Your task to perform on an android device: Go to sound settings Image 0: 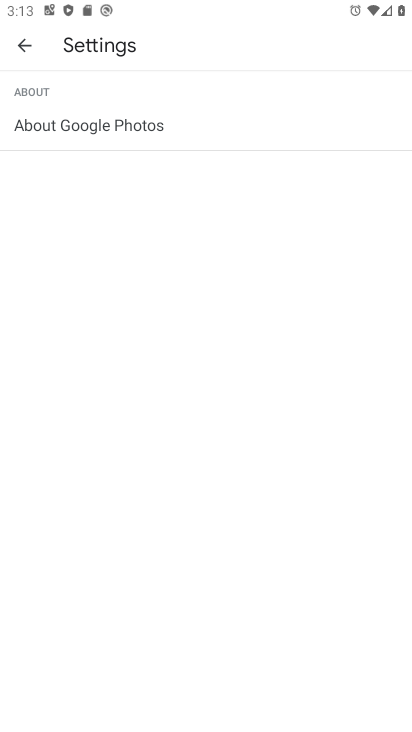
Step 0: press home button
Your task to perform on an android device: Go to sound settings Image 1: 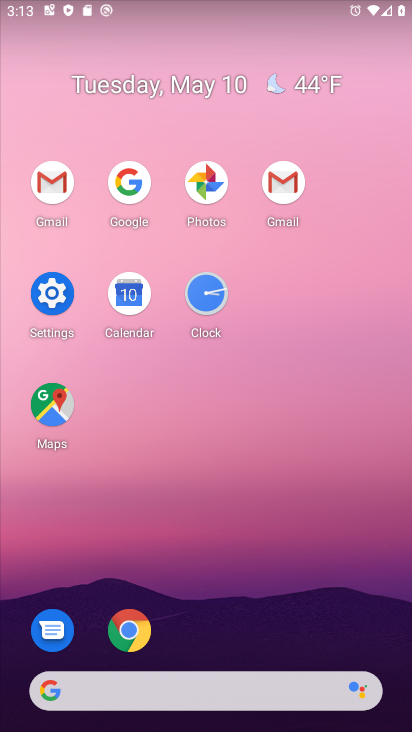
Step 1: click (57, 296)
Your task to perform on an android device: Go to sound settings Image 2: 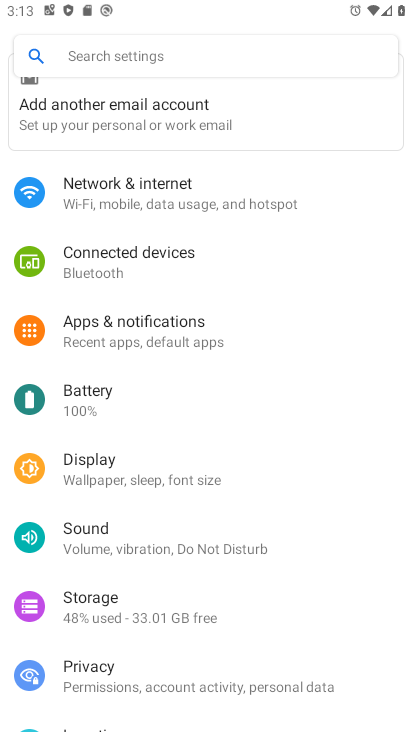
Step 2: click (166, 536)
Your task to perform on an android device: Go to sound settings Image 3: 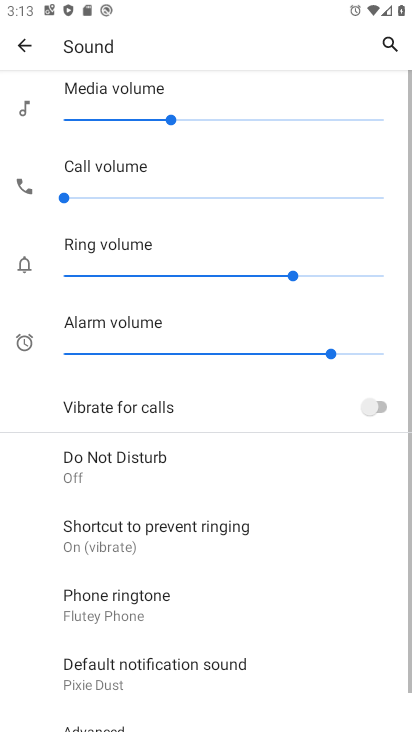
Step 3: task complete